Your task to perform on an android device: Go to Google Image 0: 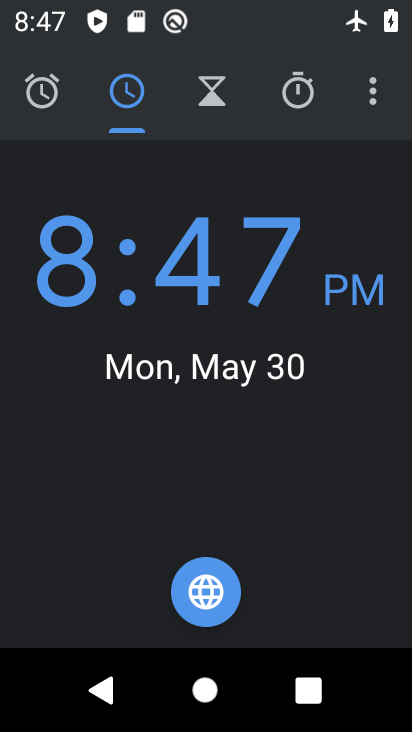
Step 0: press home button
Your task to perform on an android device: Go to Google Image 1: 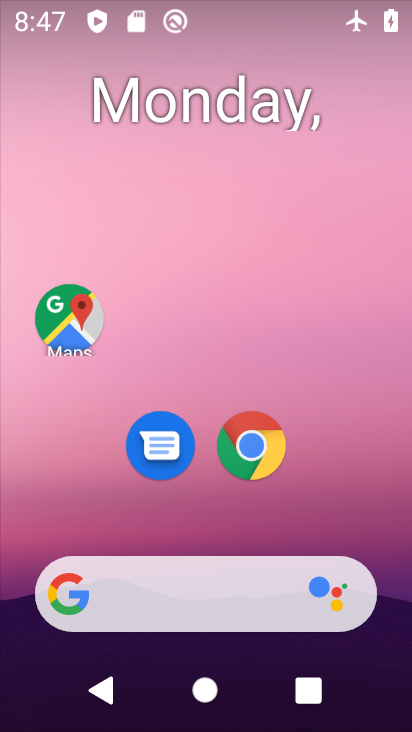
Step 1: drag from (352, 505) to (334, 153)
Your task to perform on an android device: Go to Google Image 2: 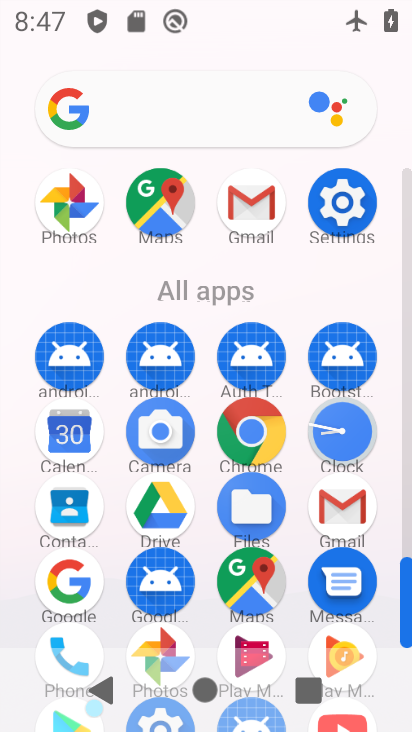
Step 2: click (89, 587)
Your task to perform on an android device: Go to Google Image 3: 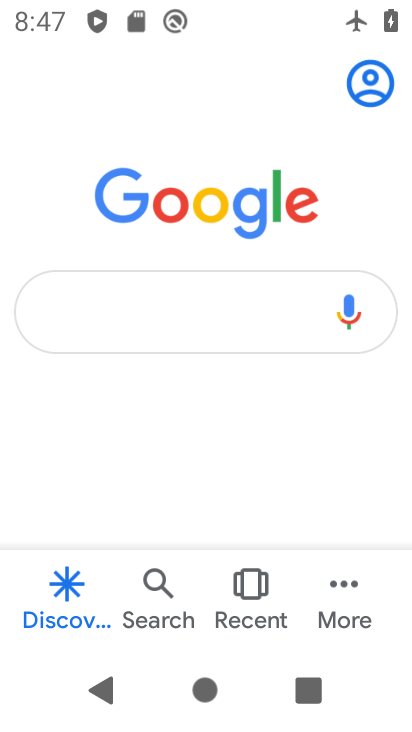
Step 3: task complete